Your task to perform on an android device: Open my contact list Image 0: 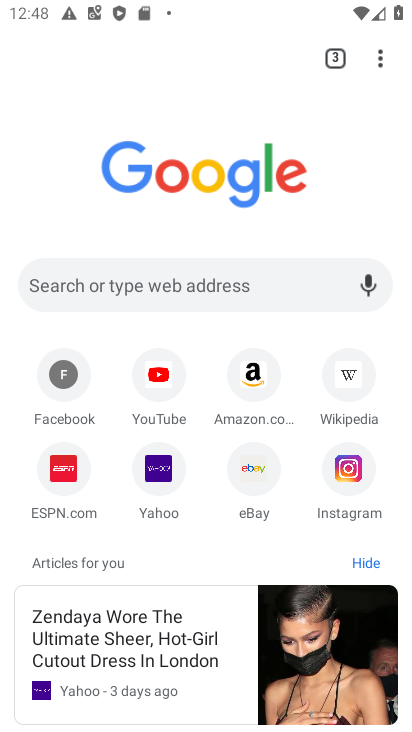
Step 0: press home button
Your task to perform on an android device: Open my contact list Image 1: 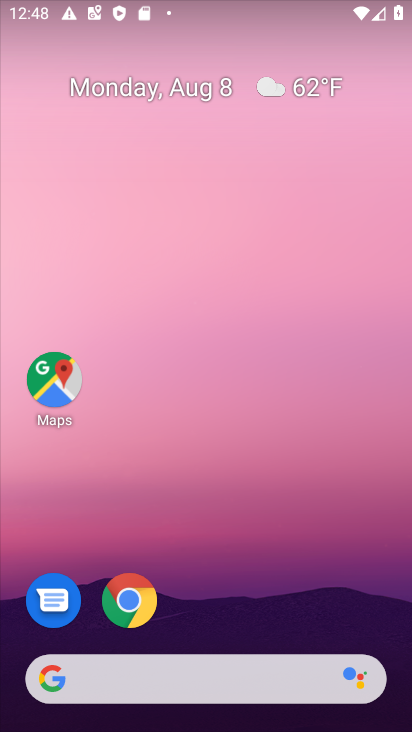
Step 1: drag from (197, 596) to (161, 238)
Your task to perform on an android device: Open my contact list Image 2: 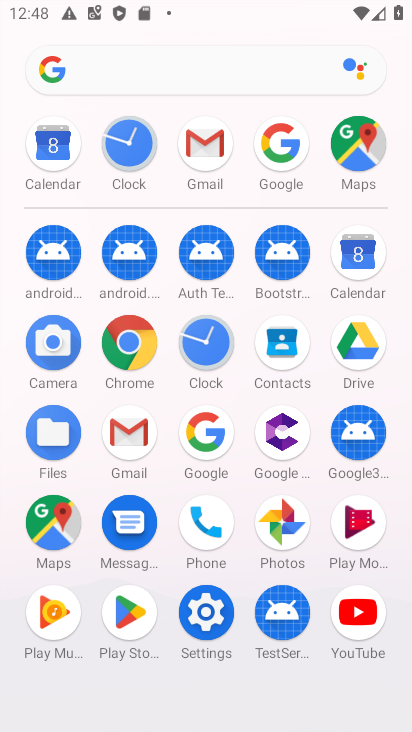
Step 2: click (266, 379)
Your task to perform on an android device: Open my contact list Image 3: 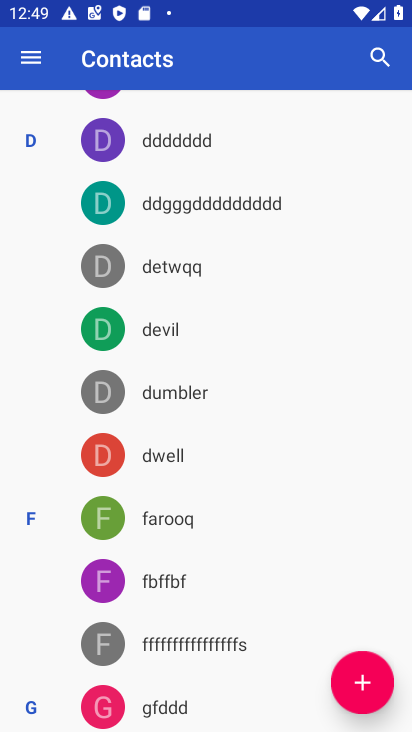
Step 3: task complete